Your task to perform on an android device: When is my next appointment? Image 0: 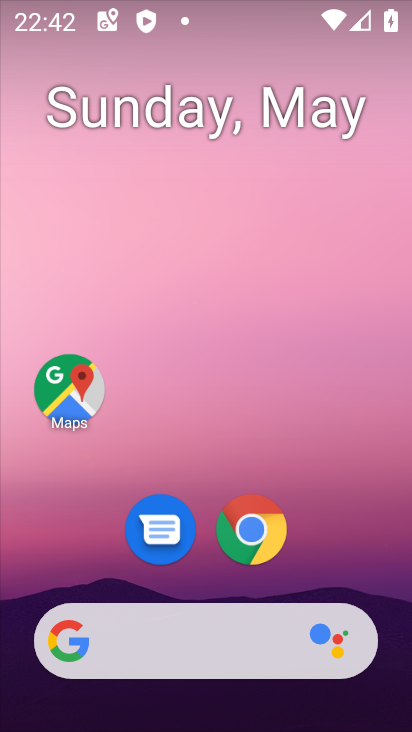
Step 0: drag from (387, 568) to (251, 126)
Your task to perform on an android device: When is my next appointment? Image 1: 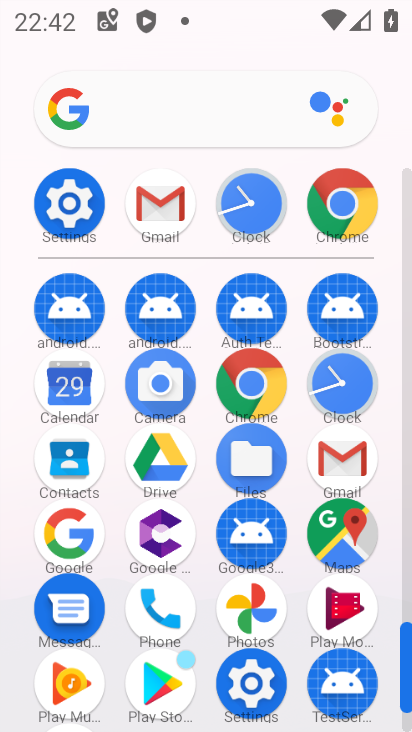
Step 1: click (81, 220)
Your task to perform on an android device: When is my next appointment? Image 2: 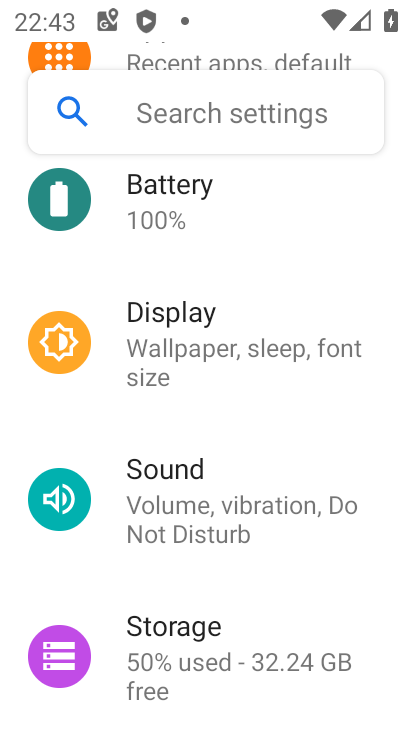
Step 2: drag from (274, 578) to (274, 185)
Your task to perform on an android device: When is my next appointment? Image 3: 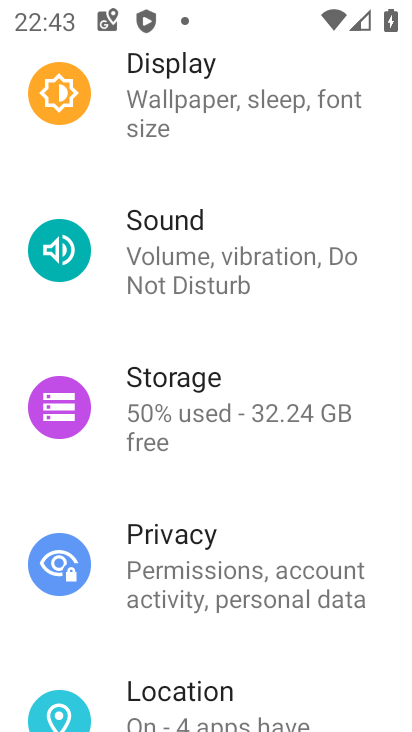
Step 3: press home button
Your task to perform on an android device: When is my next appointment? Image 4: 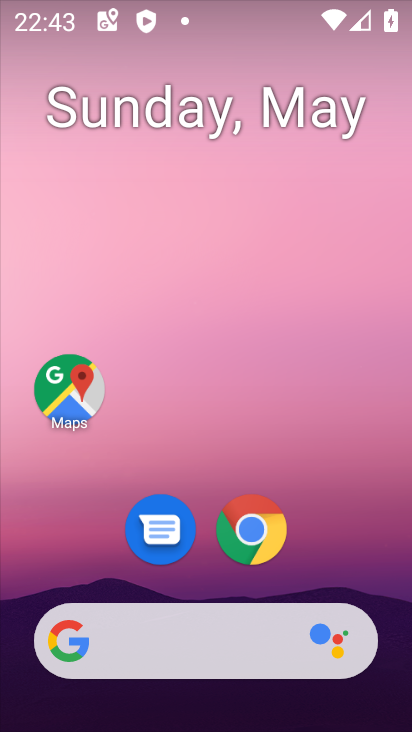
Step 4: drag from (370, 534) to (296, 38)
Your task to perform on an android device: When is my next appointment? Image 5: 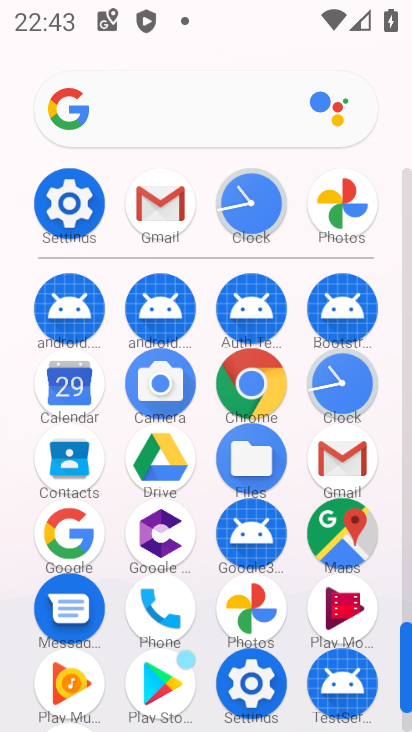
Step 5: click (69, 406)
Your task to perform on an android device: When is my next appointment? Image 6: 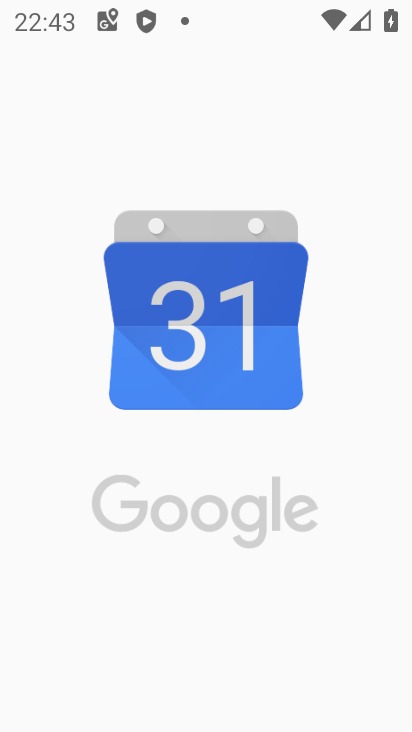
Step 6: task complete